Your task to perform on an android device: show emergency info Image 0: 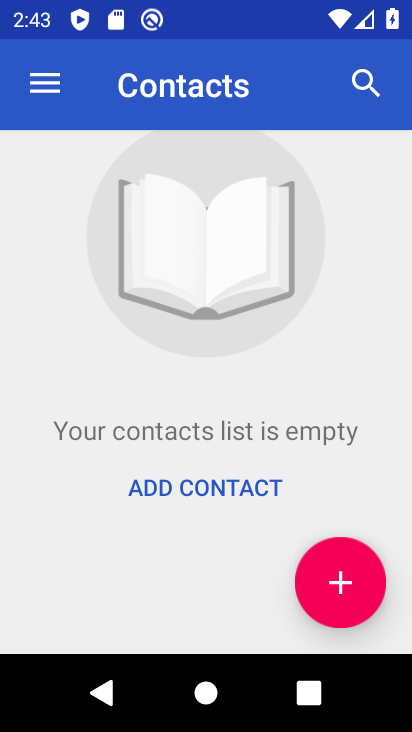
Step 0: press home button
Your task to perform on an android device: show emergency info Image 1: 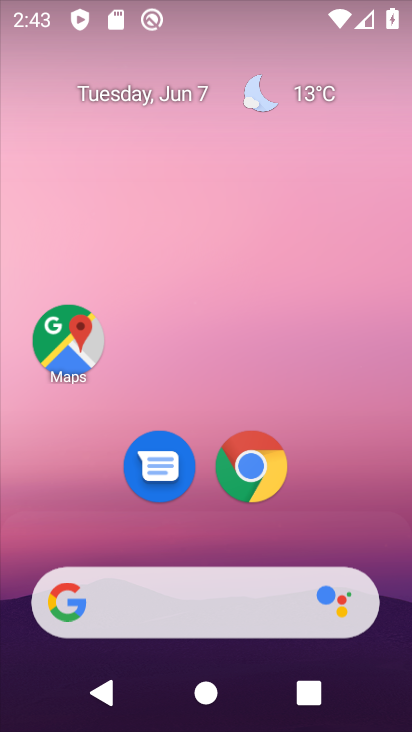
Step 1: drag from (197, 578) to (251, 206)
Your task to perform on an android device: show emergency info Image 2: 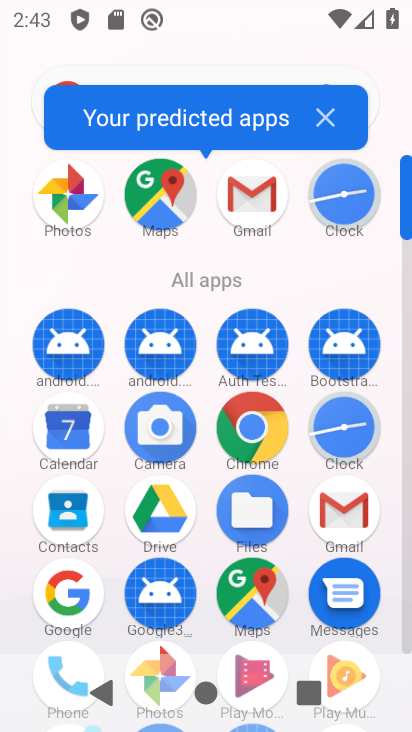
Step 2: drag from (185, 576) to (214, 153)
Your task to perform on an android device: show emergency info Image 3: 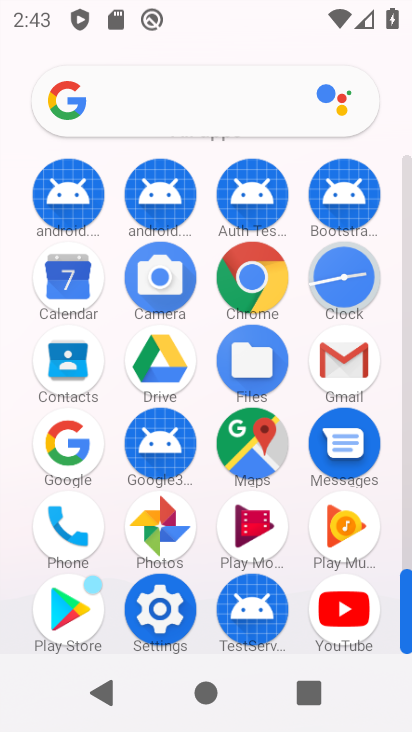
Step 3: click (157, 613)
Your task to perform on an android device: show emergency info Image 4: 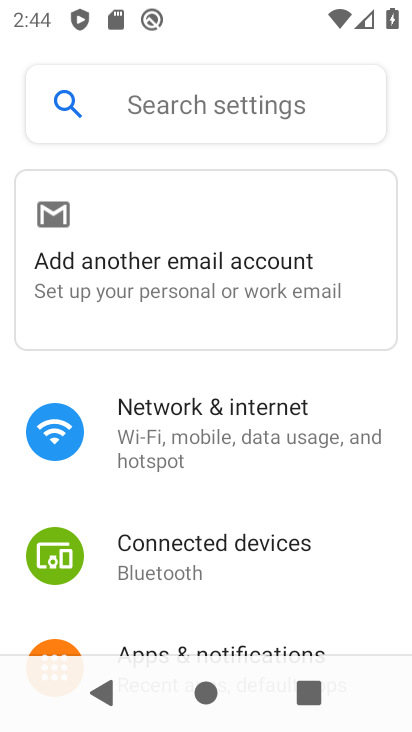
Step 4: drag from (253, 612) to (343, 187)
Your task to perform on an android device: show emergency info Image 5: 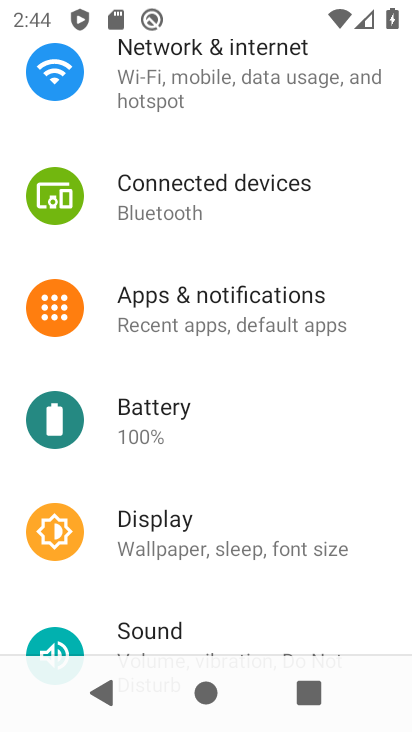
Step 5: drag from (184, 618) to (223, 237)
Your task to perform on an android device: show emergency info Image 6: 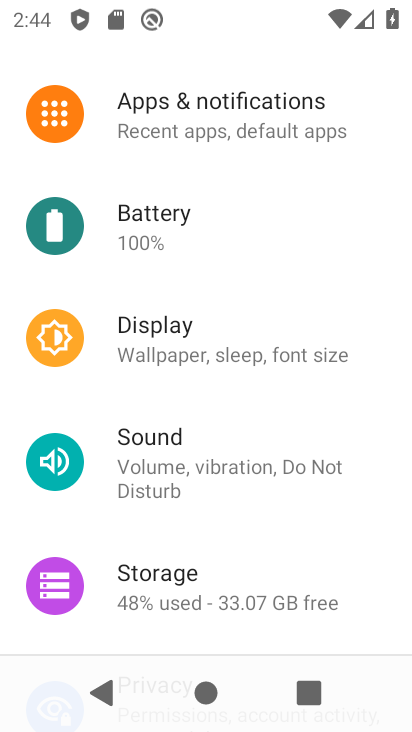
Step 6: drag from (213, 586) to (207, 113)
Your task to perform on an android device: show emergency info Image 7: 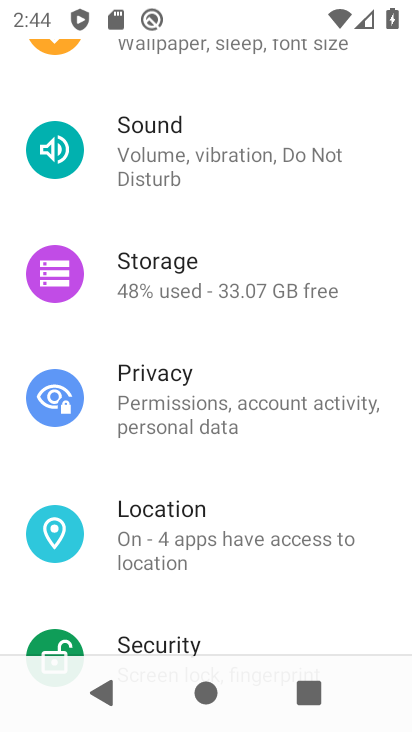
Step 7: drag from (192, 609) to (240, 240)
Your task to perform on an android device: show emergency info Image 8: 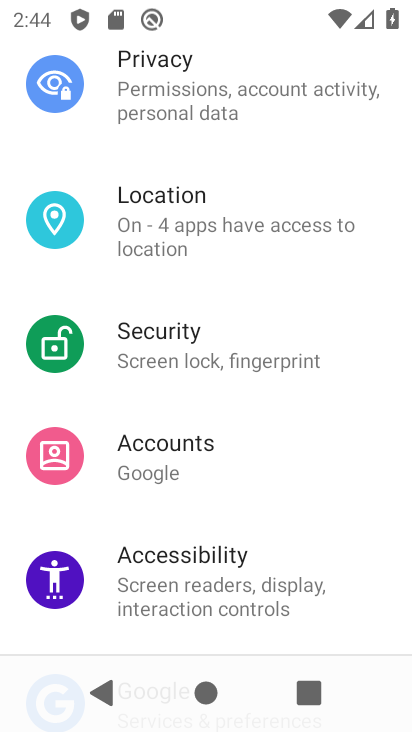
Step 8: drag from (176, 608) to (242, 127)
Your task to perform on an android device: show emergency info Image 9: 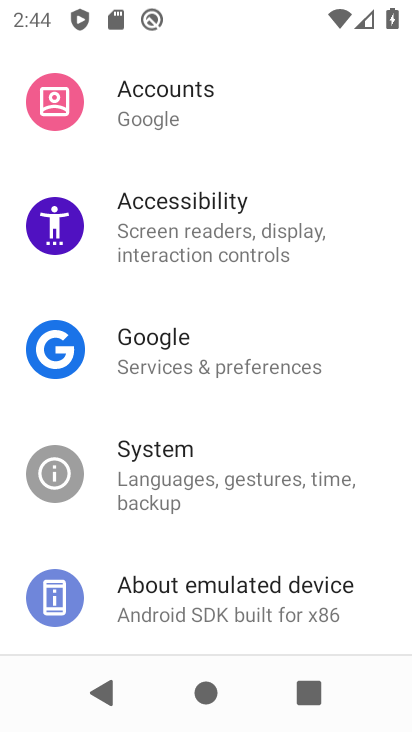
Step 9: click (216, 588)
Your task to perform on an android device: show emergency info Image 10: 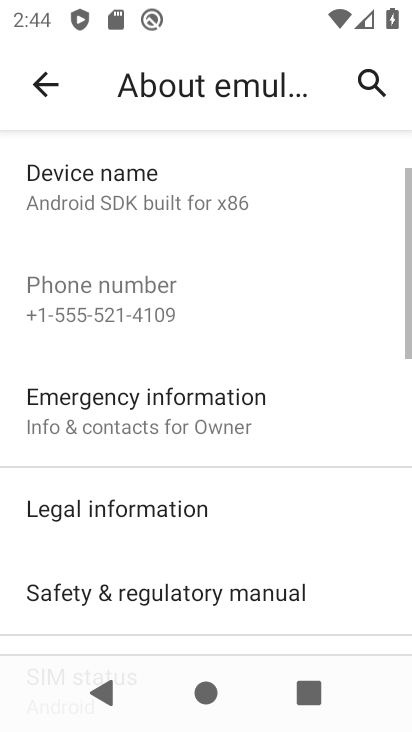
Step 10: press back button
Your task to perform on an android device: show emergency info Image 11: 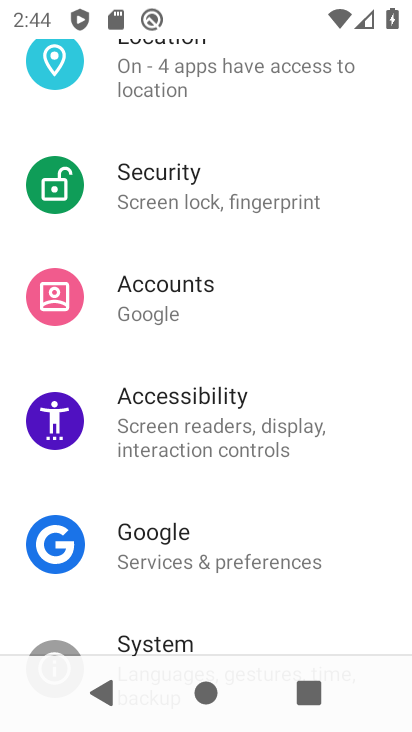
Step 11: drag from (156, 621) to (235, 196)
Your task to perform on an android device: show emergency info Image 12: 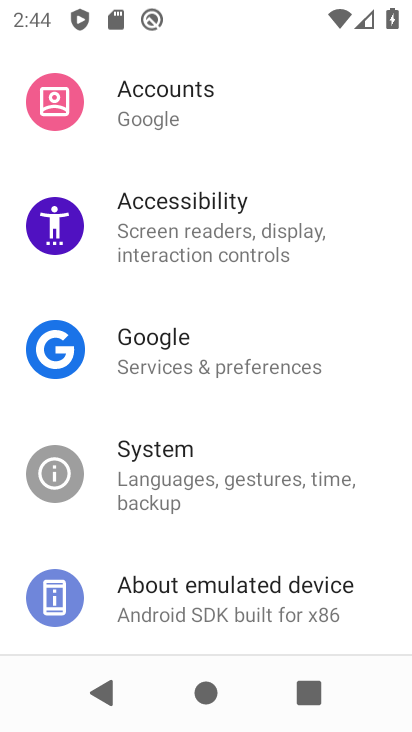
Step 12: click (217, 592)
Your task to perform on an android device: show emergency info Image 13: 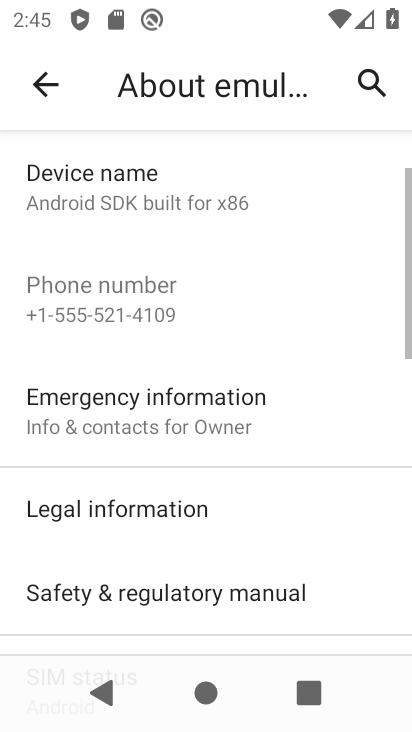
Step 13: drag from (162, 596) to (137, 206)
Your task to perform on an android device: show emergency info Image 14: 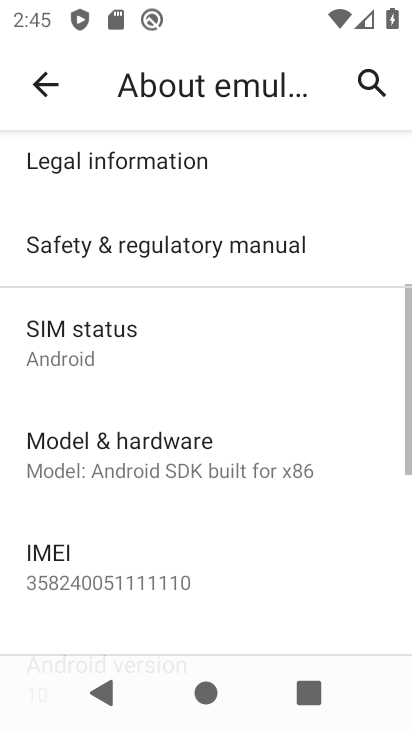
Step 14: drag from (156, 551) to (173, 153)
Your task to perform on an android device: show emergency info Image 15: 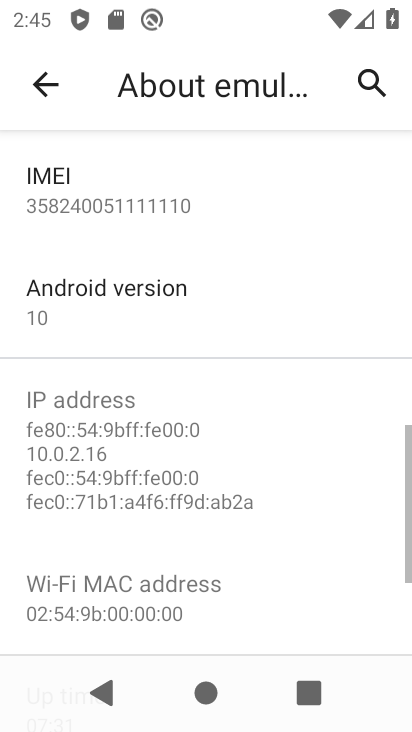
Step 15: drag from (199, 267) to (149, 656)
Your task to perform on an android device: show emergency info Image 16: 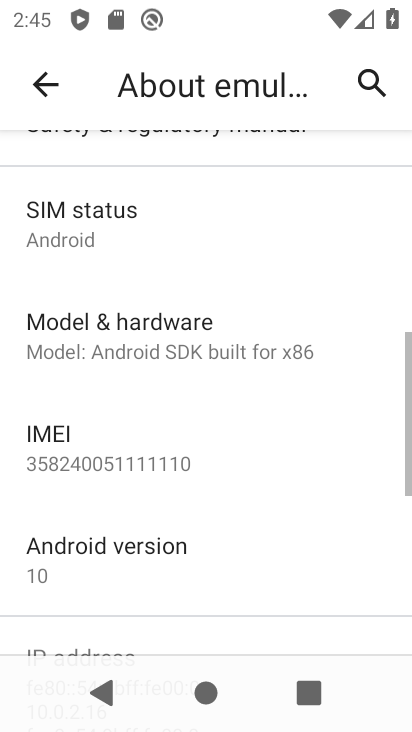
Step 16: drag from (154, 314) to (188, 625)
Your task to perform on an android device: show emergency info Image 17: 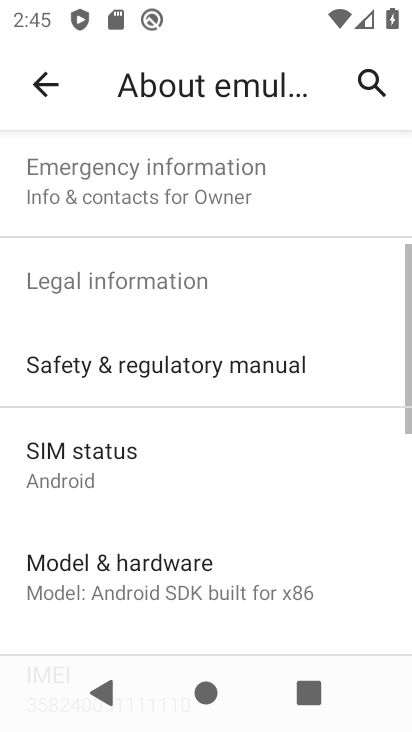
Step 17: click (176, 204)
Your task to perform on an android device: show emergency info Image 18: 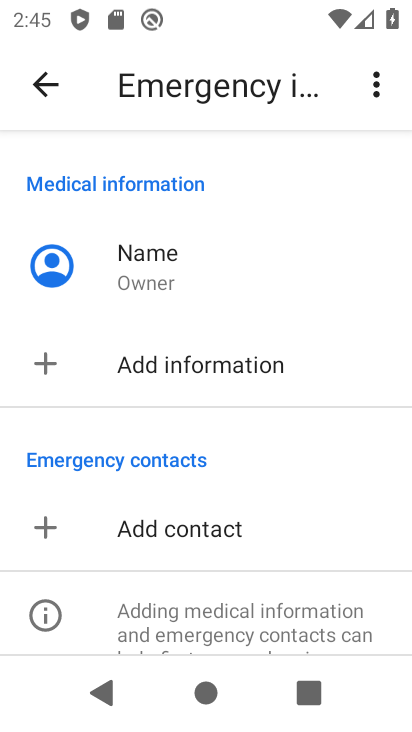
Step 18: task complete